Your task to perform on an android device: Turn off the flashlight Image 0: 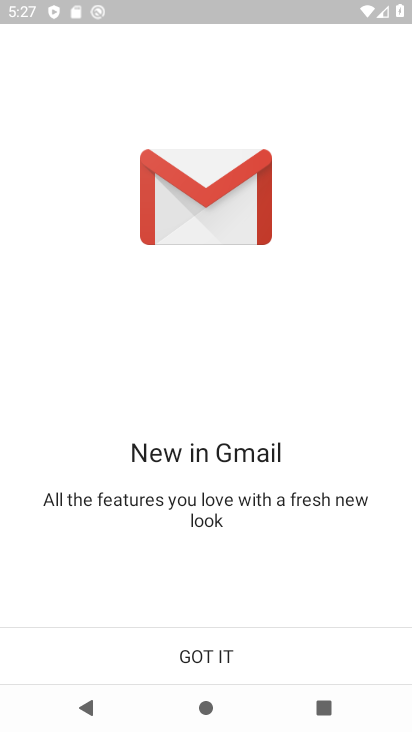
Step 0: drag from (208, 633) to (278, 375)
Your task to perform on an android device: Turn off the flashlight Image 1: 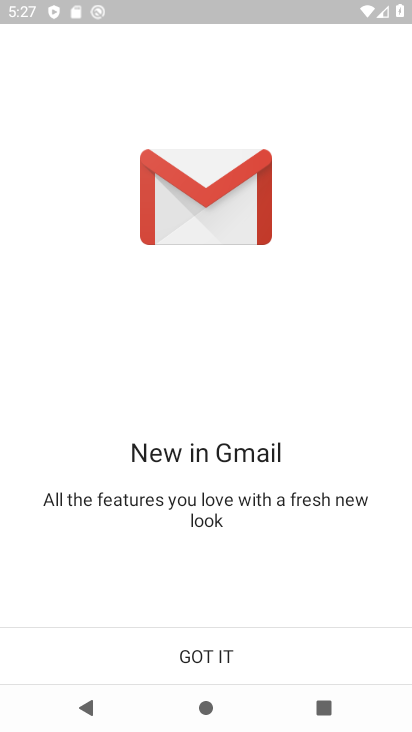
Step 1: press back button
Your task to perform on an android device: Turn off the flashlight Image 2: 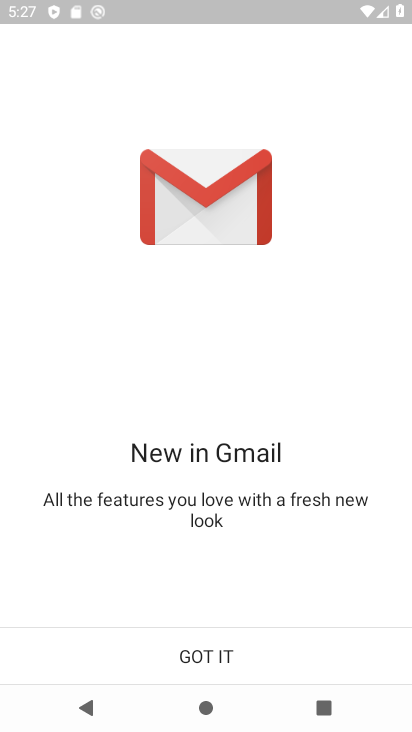
Step 2: press back button
Your task to perform on an android device: Turn off the flashlight Image 3: 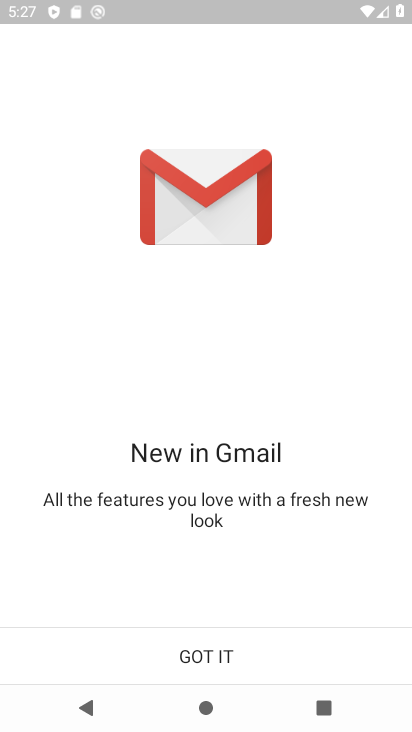
Step 3: click (216, 651)
Your task to perform on an android device: Turn off the flashlight Image 4: 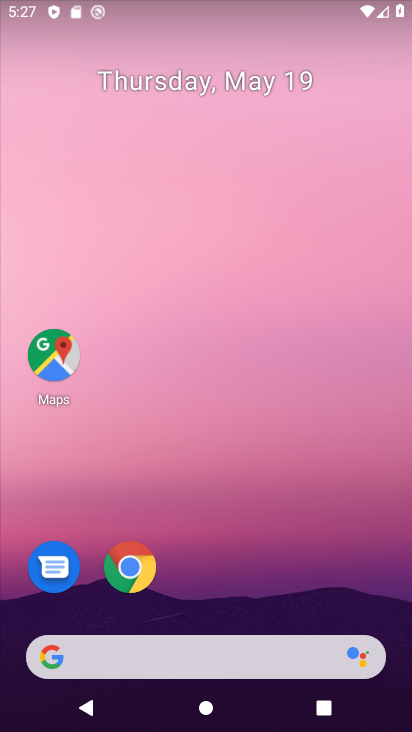
Step 4: task complete